Your task to perform on an android device: Open internet settings Image 0: 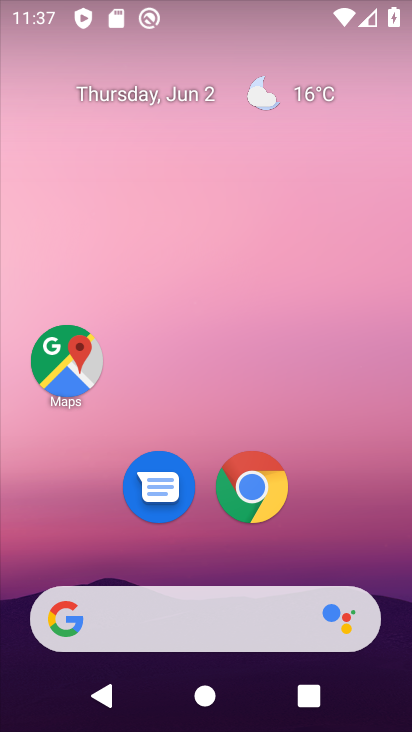
Step 0: press home button
Your task to perform on an android device: Open internet settings Image 1: 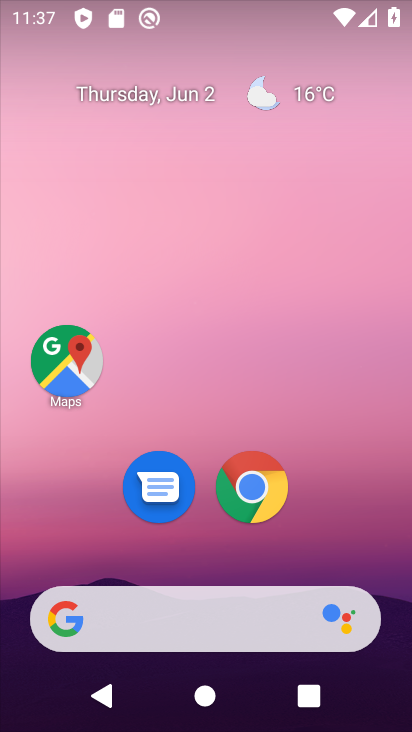
Step 1: drag from (196, 560) to (147, 185)
Your task to perform on an android device: Open internet settings Image 2: 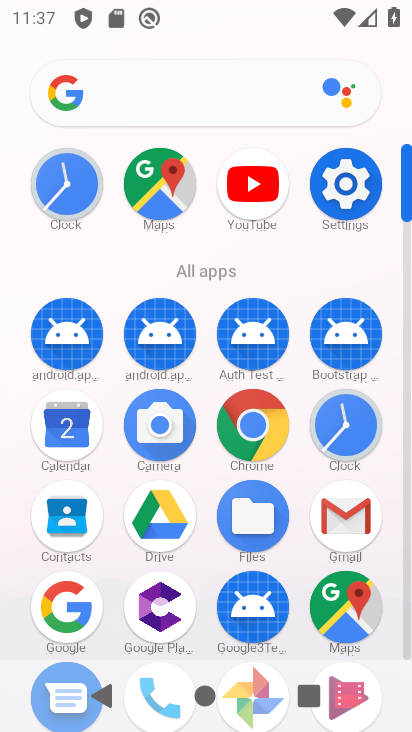
Step 2: click (358, 185)
Your task to perform on an android device: Open internet settings Image 3: 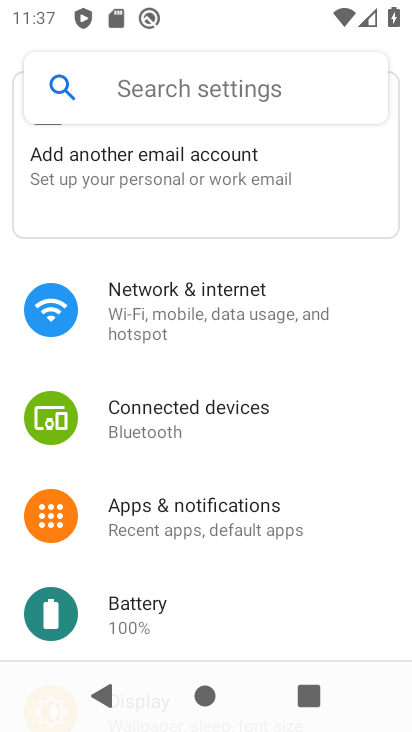
Step 3: click (193, 291)
Your task to perform on an android device: Open internet settings Image 4: 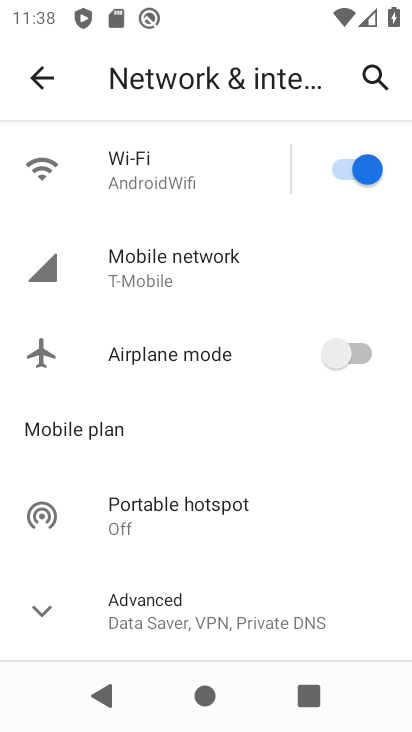
Step 4: task complete